Your task to perform on an android device: Open calendar and show me the third week of next month Image 0: 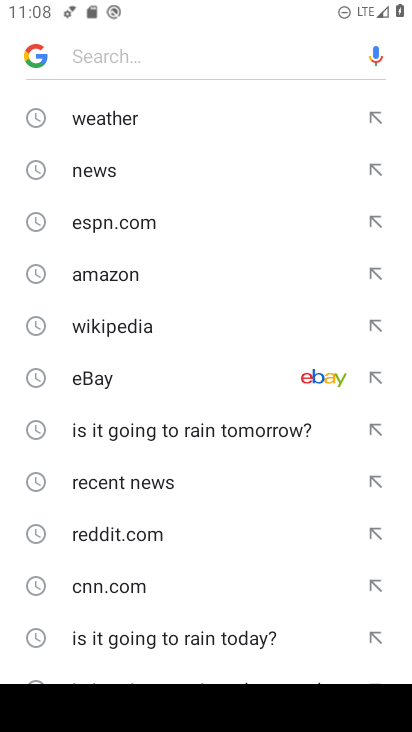
Step 0: press home button
Your task to perform on an android device: Open calendar and show me the third week of next month Image 1: 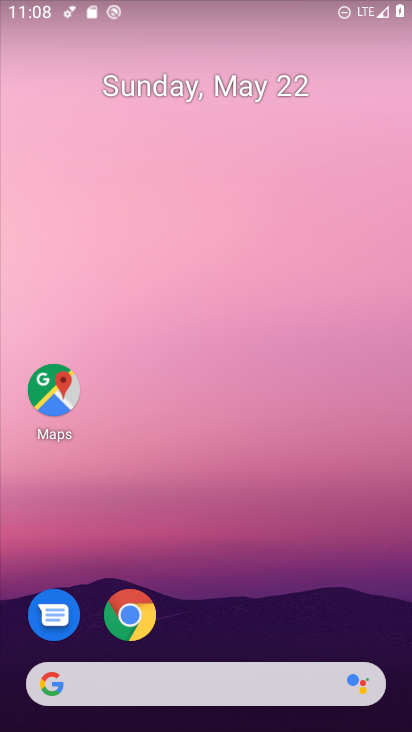
Step 1: drag from (257, 628) to (273, 161)
Your task to perform on an android device: Open calendar and show me the third week of next month Image 2: 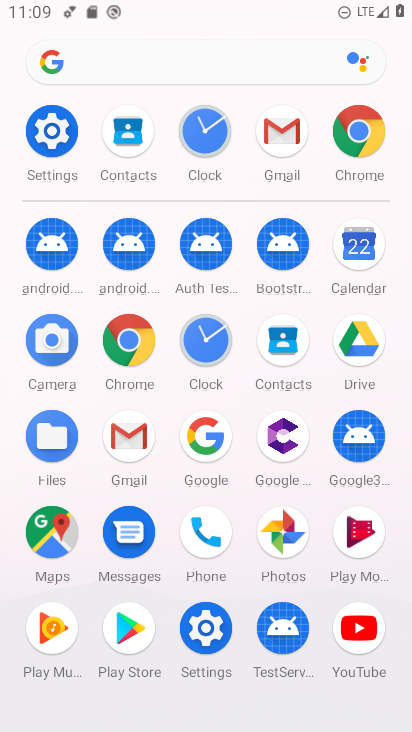
Step 2: click (364, 237)
Your task to perform on an android device: Open calendar and show me the third week of next month Image 3: 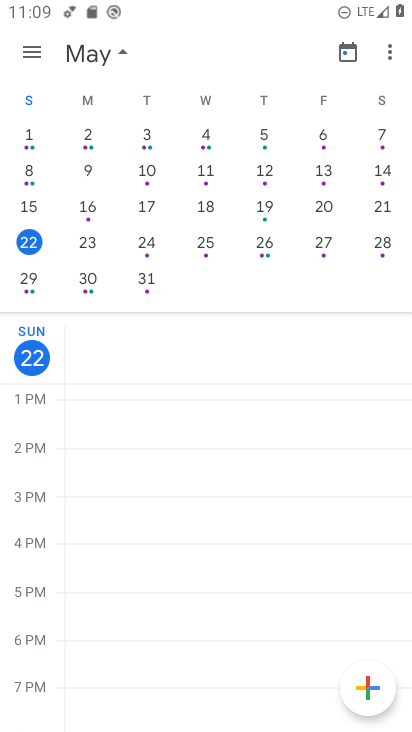
Step 3: drag from (336, 192) to (19, 188)
Your task to perform on an android device: Open calendar and show me the third week of next month Image 4: 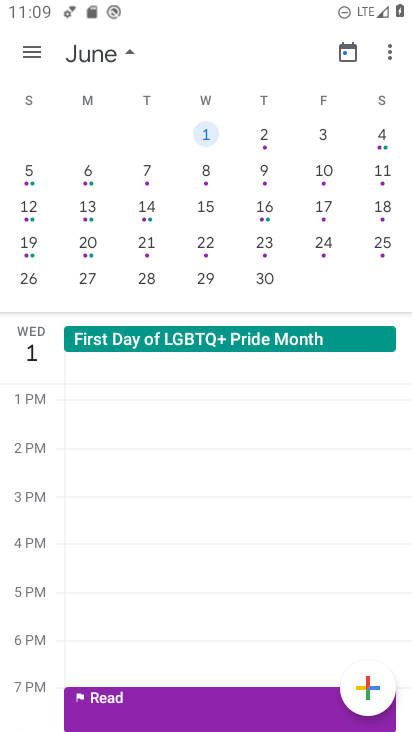
Step 4: click (30, 242)
Your task to perform on an android device: Open calendar and show me the third week of next month Image 5: 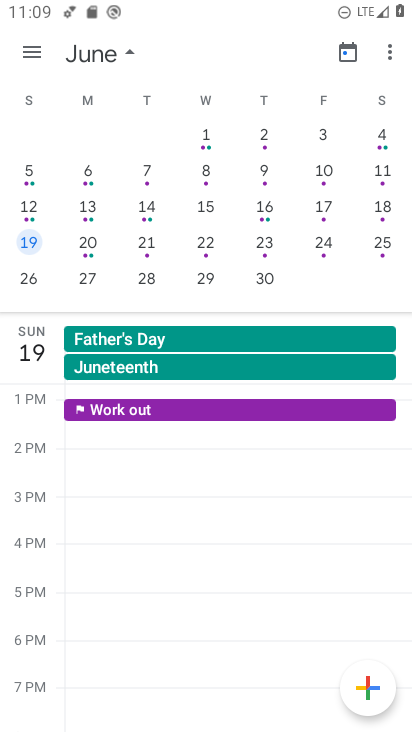
Step 5: click (39, 53)
Your task to perform on an android device: Open calendar and show me the third week of next month Image 6: 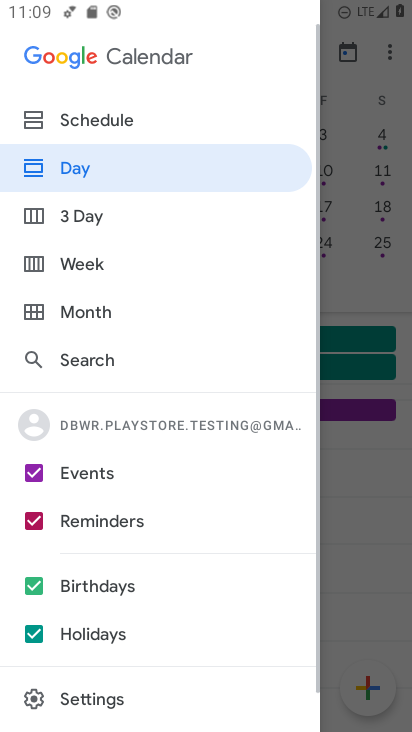
Step 6: click (95, 259)
Your task to perform on an android device: Open calendar and show me the third week of next month Image 7: 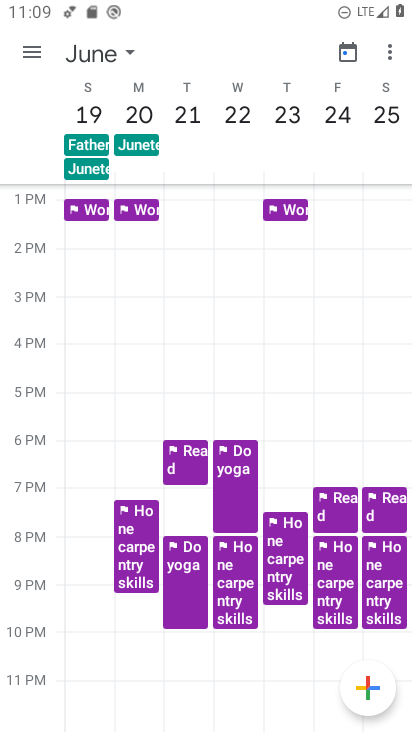
Step 7: task complete